Your task to perform on an android device: see creations saved in the google photos Image 0: 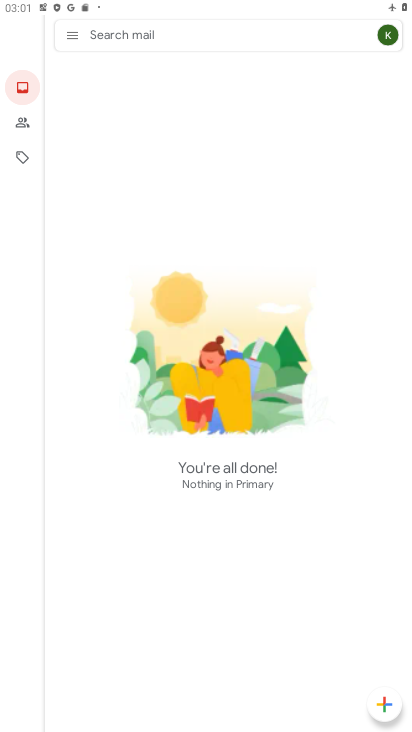
Step 0: press home button
Your task to perform on an android device: see creations saved in the google photos Image 1: 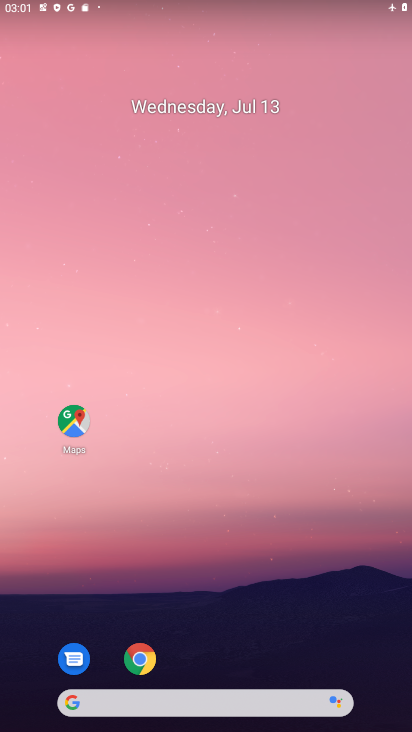
Step 1: drag from (310, 656) to (267, 111)
Your task to perform on an android device: see creations saved in the google photos Image 2: 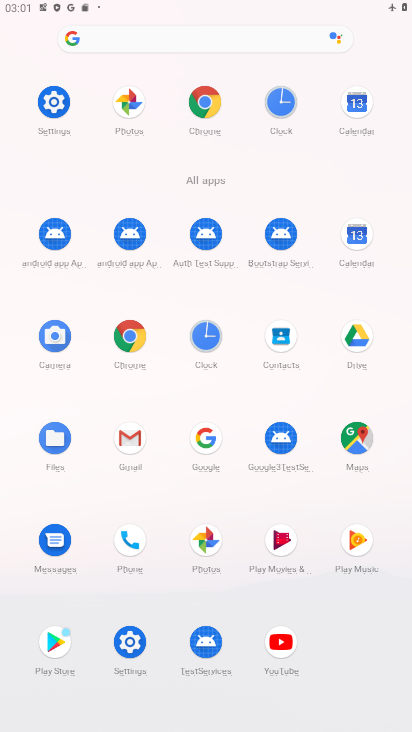
Step 2: click (133, 107)
Your task to perform on an android device: see creations saved in the google photos Image 3: 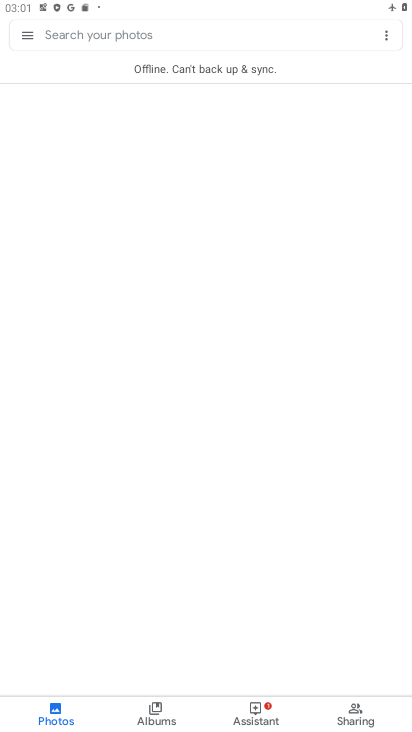
Step 3: task complete